Your task to perform on an android device: Open the phone app and click the voicemail tab. Image 0: 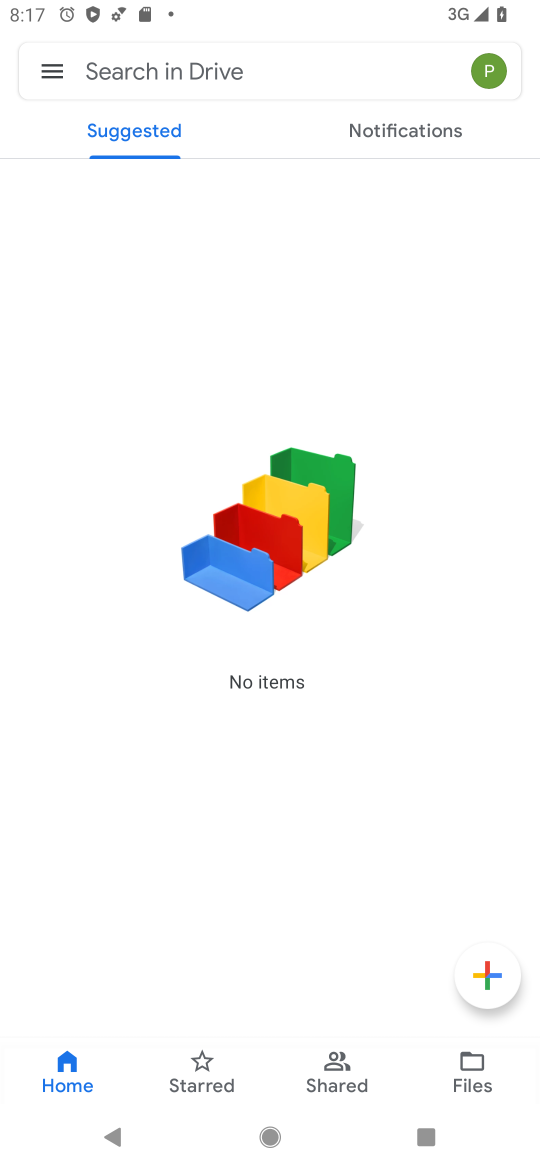
Step 0: press back button
Your task to perform on an android device: Open the phone app and click the voicemail tab. Image 1: 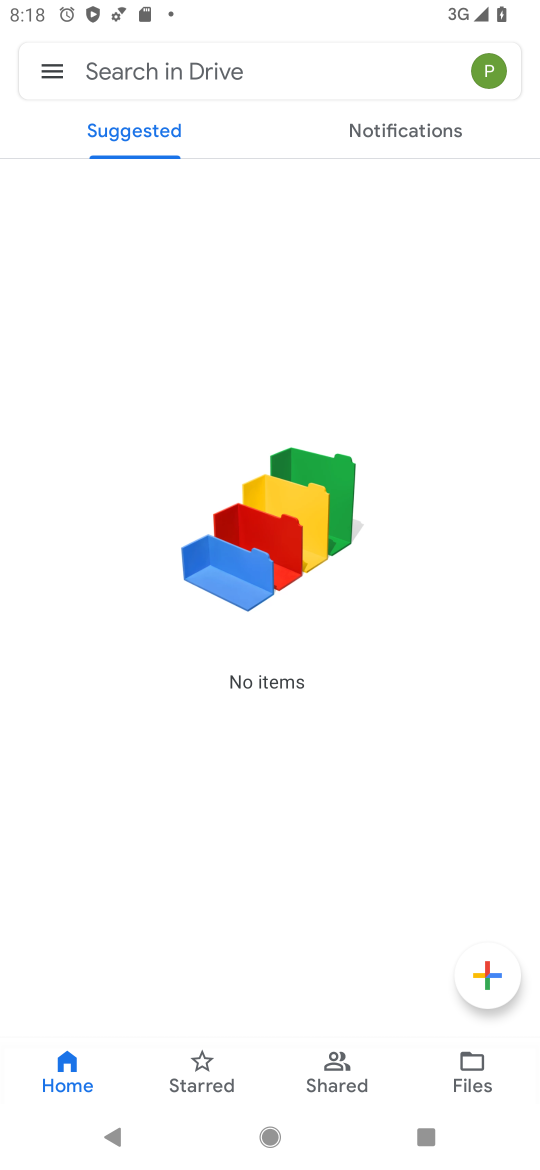
Step 1: press back button
Your task to perform on an android device: Open the phone app and click the voicemail tab. Image 2: 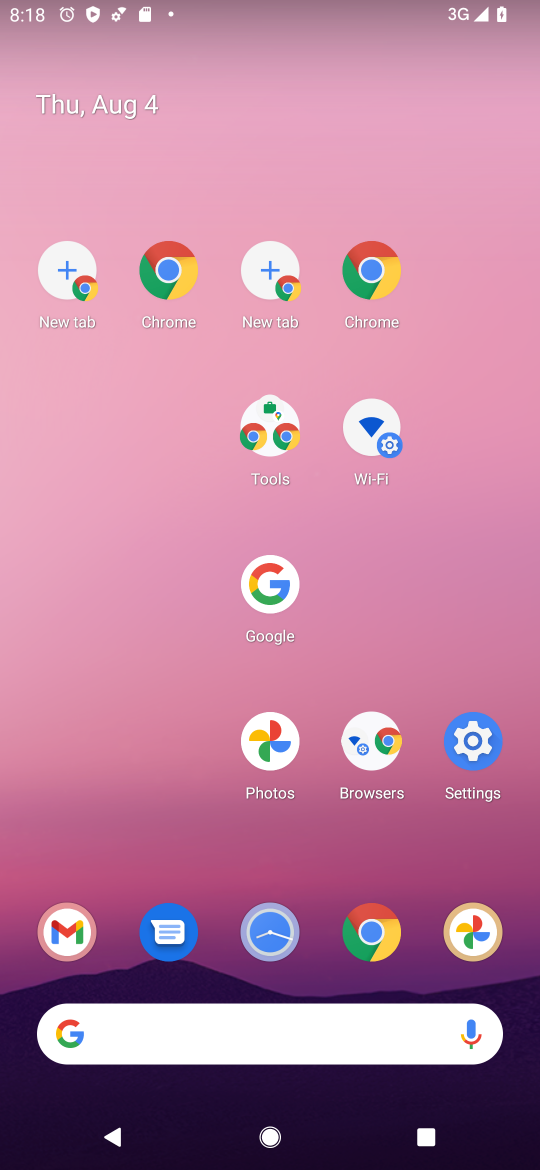
Step 2: drag from (377, 865) to (337, 61)
Your task to perform on an android device: Open the phone app and click the voicemail tab. Image 3: 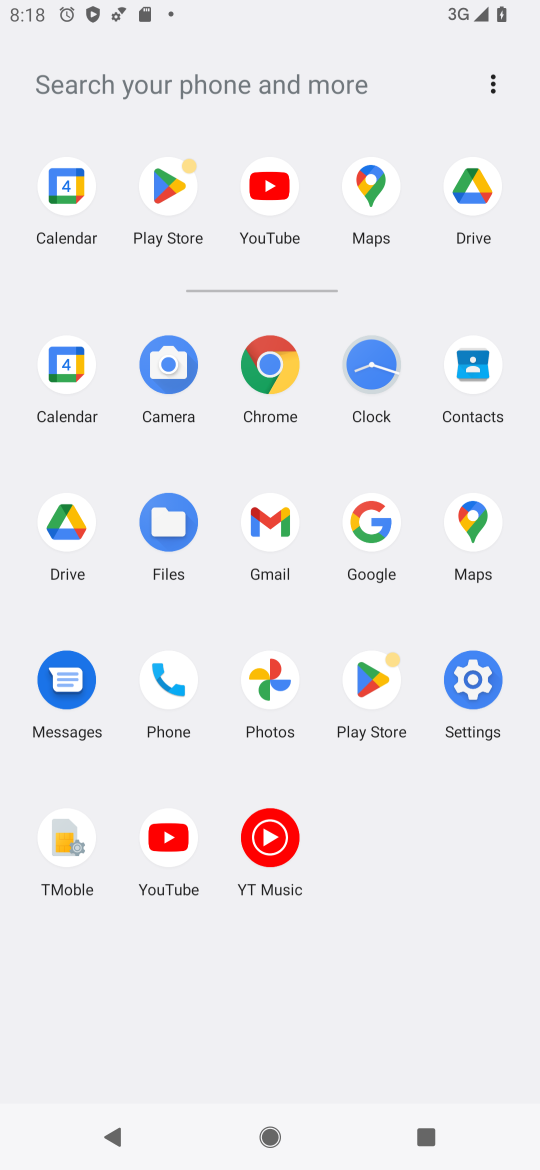
Step 3: click (410, 191)
Your task to perform on an android device: Open the phone app and click the voicemail tab. Image 4: 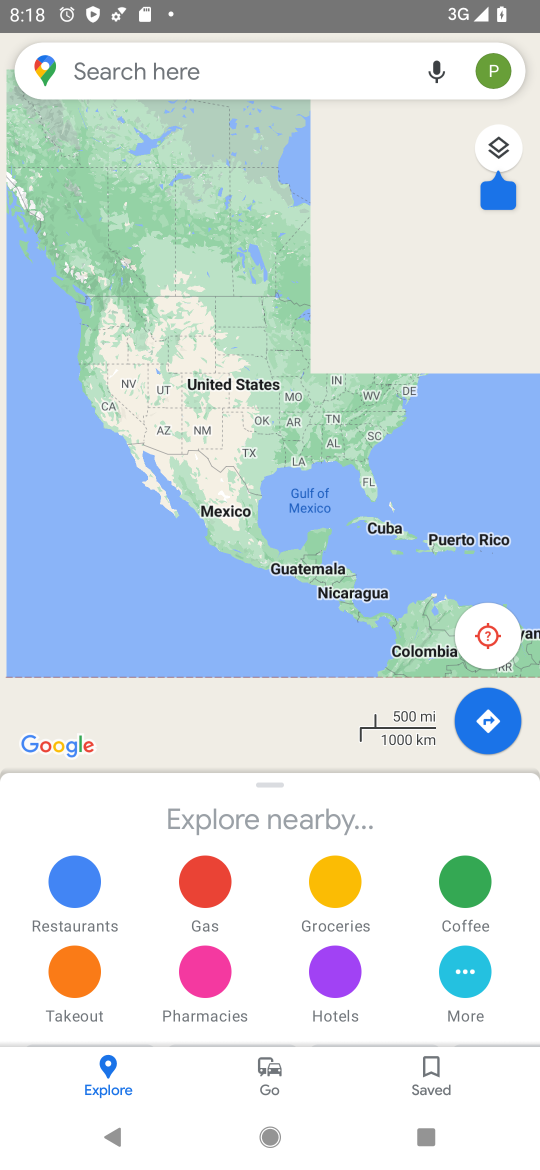
Step 4: press back button
Your task to perform on an android device: Open the phone app and click the voicemail tab. Image 5: 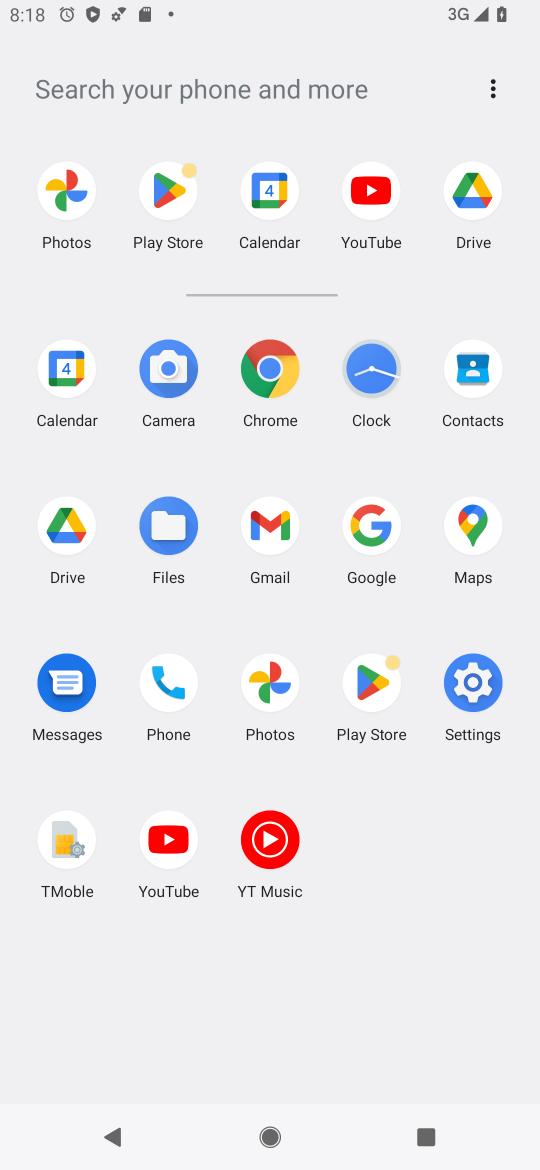
Step 5: drag from (262, 390) to (249, 288)
Your task to perform on an android device: Open the phone app and click the voicemail tab. Image 6: 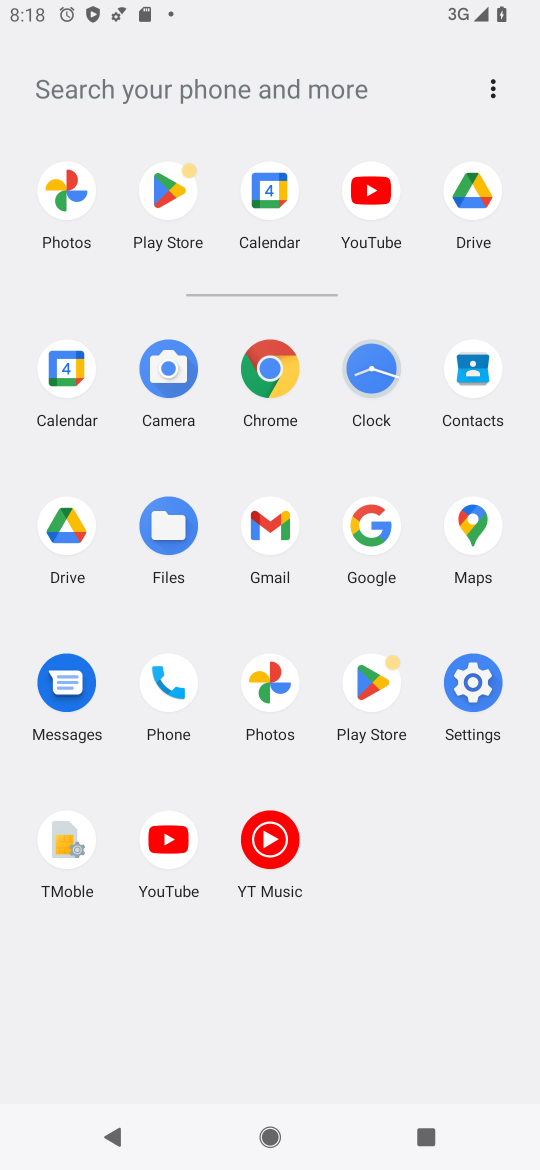
Step 6: click (158, 685)
Your task to perform on an android device: Open the phone app and click the voicemail tab. Image 7: 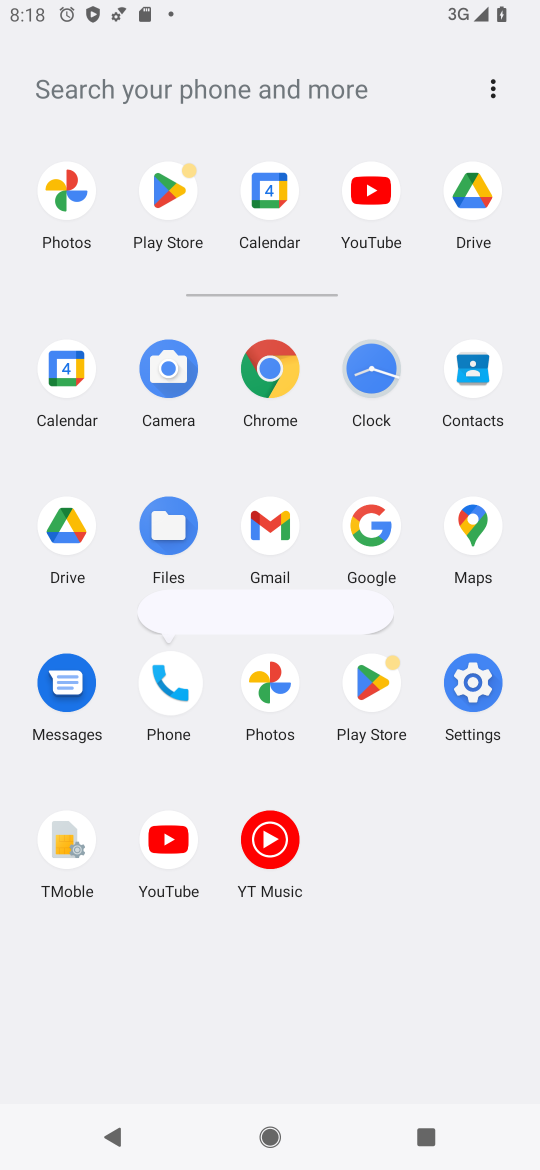
Step 7: click (179, 658)
Your task to perform on an android device: Open the phone app and click the voicemail tab. Image 8: 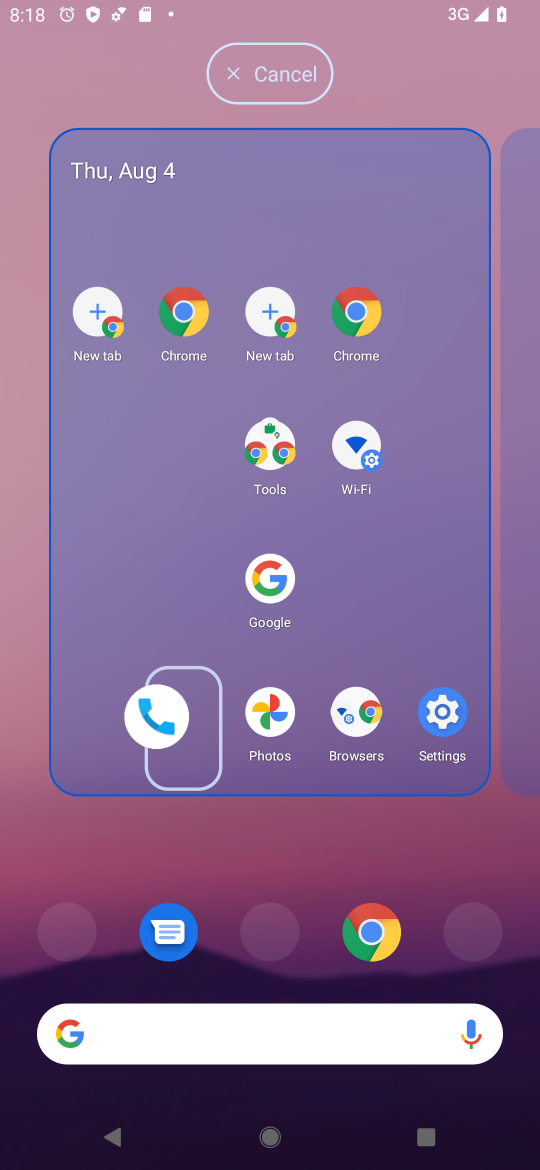
Step 8: click (167, 692)
Your task to perform on an android device: Open the phone app and click the voicemail tab. Image 9: 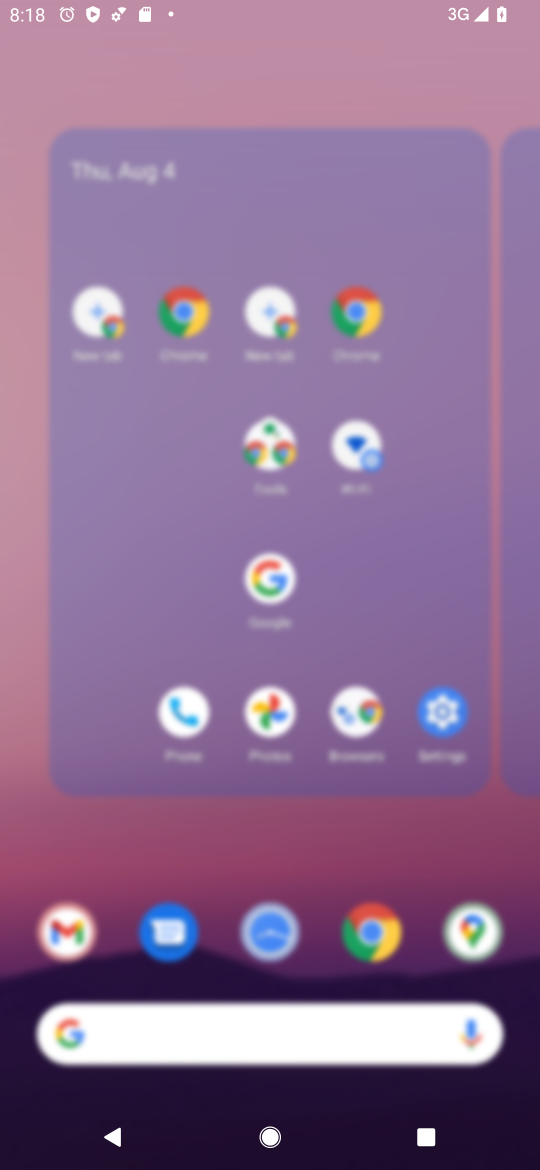
Step 9: task complete